Your task to perform on an android device: open app "Upside-Cash back on gas & food" (install if not already installed) and enter user name: "transatlantic@gmail.com" and password: "experiences" Image 0: 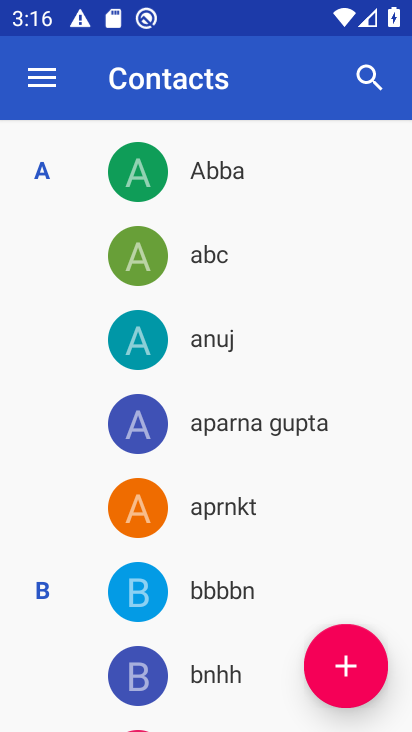
Step 0: press home button
Your task to perform on an android device: open app "Upside-Cash back on gas & food" (install if not already installed) and enter user name: "transatlantic@gmail.com" and password: "experiences" Image 1: 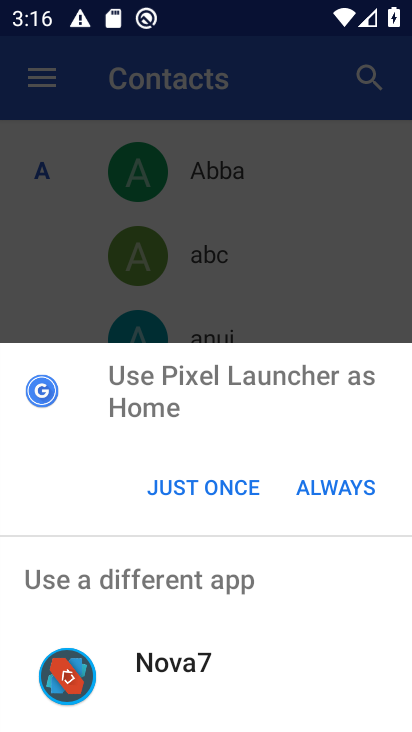
Step 1: click (180, 491)
Your task to perform on an android device: open app "Upside-Cash back on gas & food" (install if not already installed) and enter user name: "transatlantic@gmail.com" and password: "experiences" Image 2: 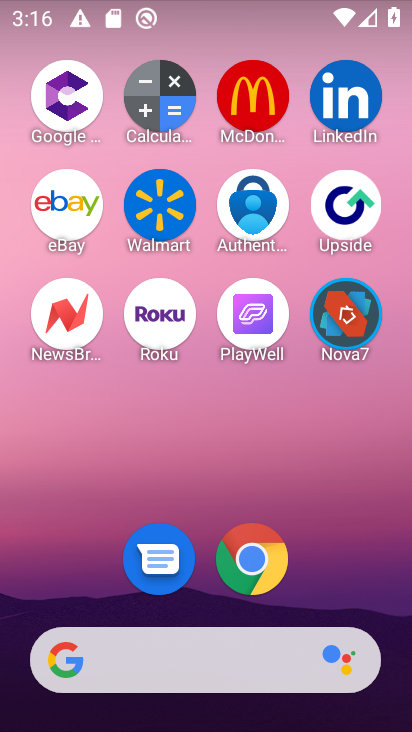
Step 2: drag from (191, 600) to (201, 198)
Your task to perform on an android device: open app "Upside-Cash back on gas & food" (install if not already installed) and enter user name: "transatlantic@gmail.com" and password: "experiences" Image 3: 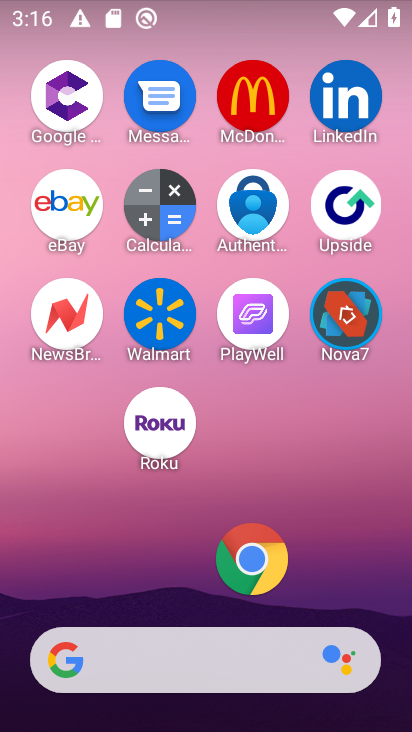
Step 3: drag from (209, 600) to (191, 88)
Your task to perform on an android device: open app "Upside-Cash back on gas & food" (install if not already installed) and enter user name: "transatlantic@gmail.com" and password: "experiences" Image 4: 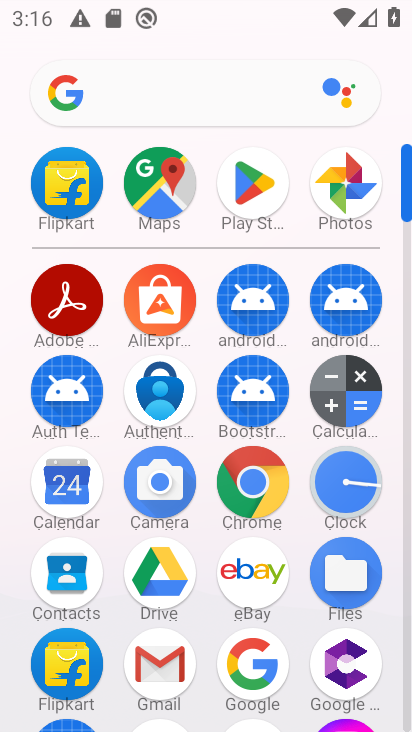
Step 4: click (246, 194)
Your task to perform on an android device: open app "Upside-Cash back on gas & food" (install if not already installed) and enter user name: "transatlantic@gmail.com" and password: "experiences" Image 5: 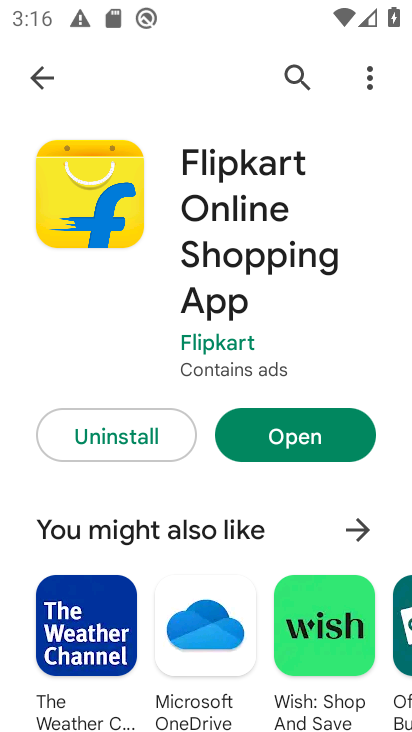
Step 5: click (294, 72)
Your task to perform on an android device: open app "Upside-Cash back on gas & food" (install if not already installed) and enter user name: "transatlantic@gmail.com" and password: "experiences" Image 6: 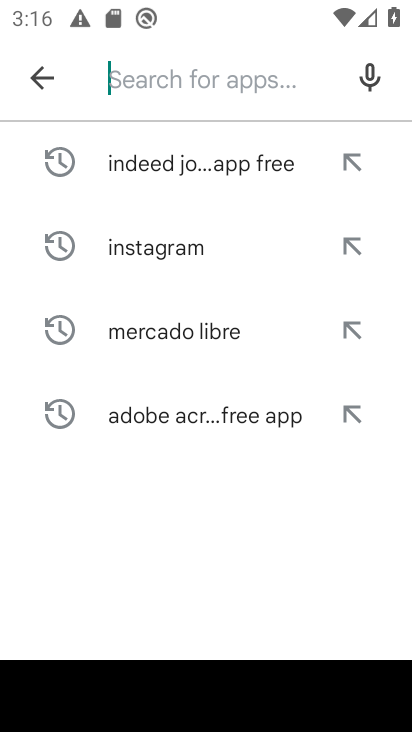
Step 6: type "Upside-Cash back on gas & food"
Your task to perform on an android device: open app "Upside-Cash back on gas & food" (install if not already installed) and enter user name: "transatlantic@gmail.com" and password: "experiences" Image 7: 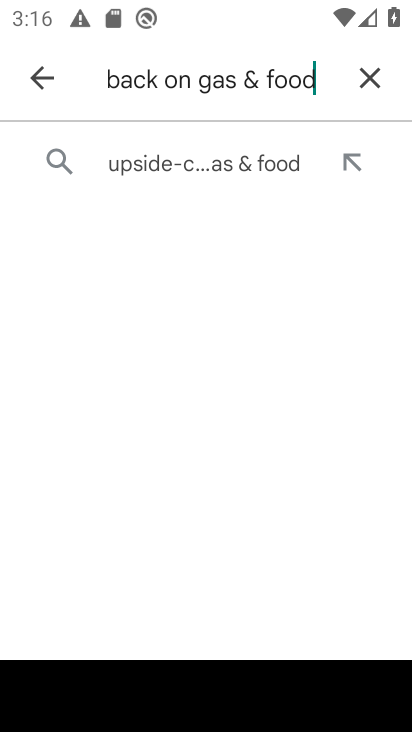
Step 7: click (131, 166)
Your task to perform on an android device: open app "Upside-Cash back on gas & food" (install if not already installed) and enter user name: "transatlantic@gmail.com" and password: "experiences" Image 8: 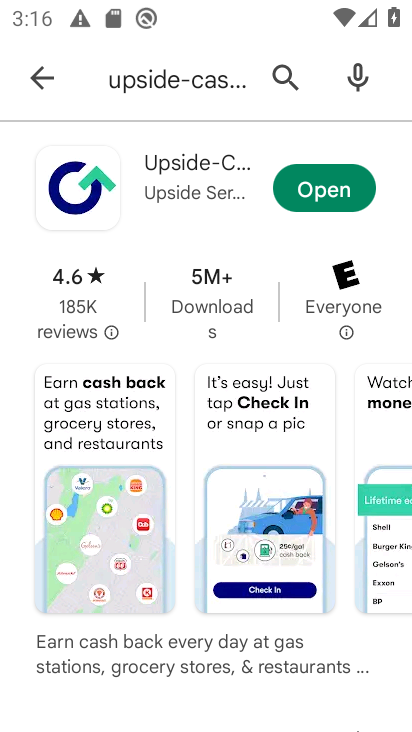
Step 8: click (311, 182)
Your task to perform on an android device: open app "Upside-Cash back on gas & food" (install if not already installed) and enter user name: "transatlantic@gmail.com" and password: "experiences" Image 9: 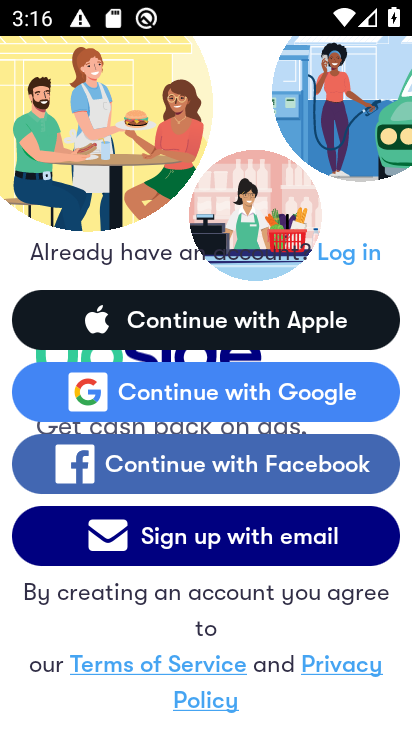
Step 9: task complete